Your task to perform on an android device: Open the map Image 0: 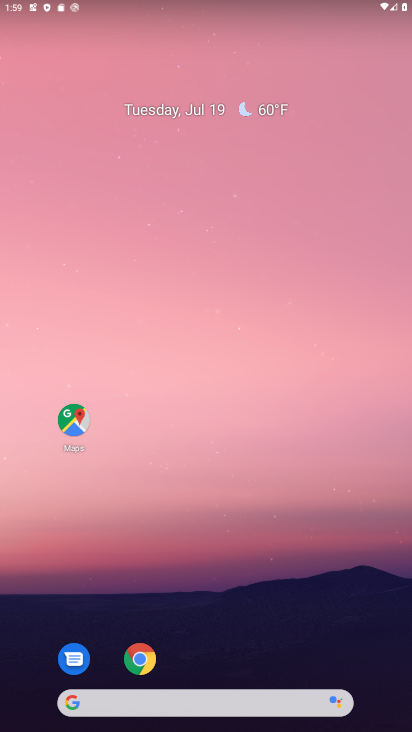
Step 0: click (72, 417)
Your task to perform on an android device: Open the map Image 1: 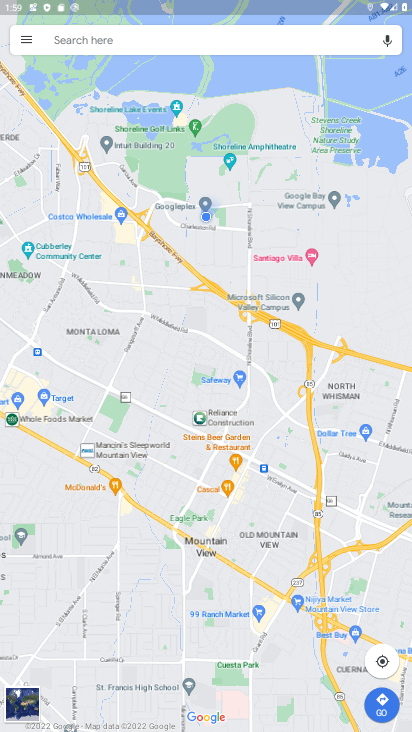
Step 1: task complete